Your task to perform on an android device: Check the news Image 0: 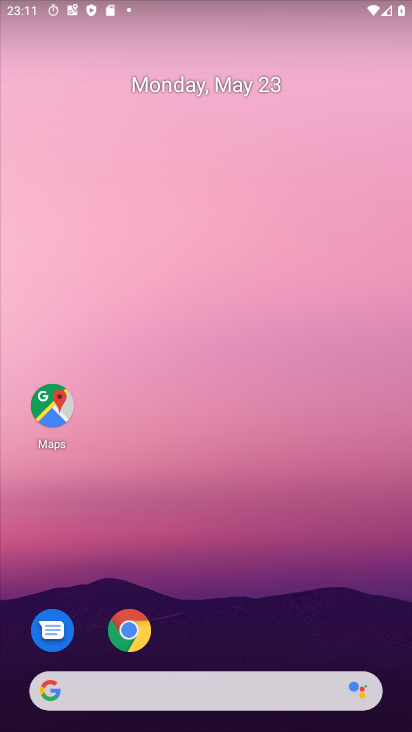
Step 0: click (99, 686)
Your task to perform on an android device: Check the news Image 1: 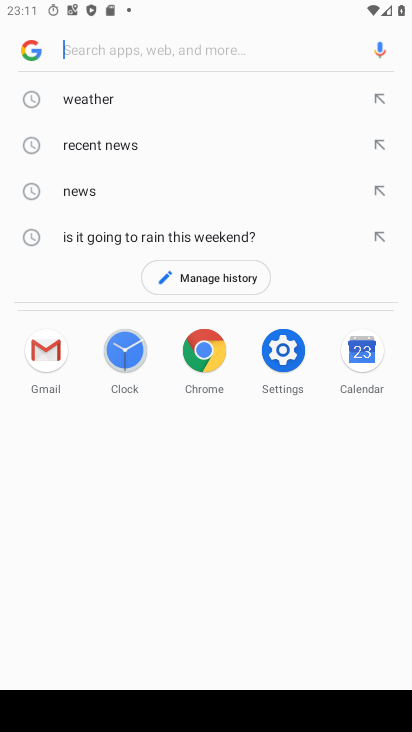
Step 1: click (72, 194)
Your task to perform on an android device: Check the news Image 2: 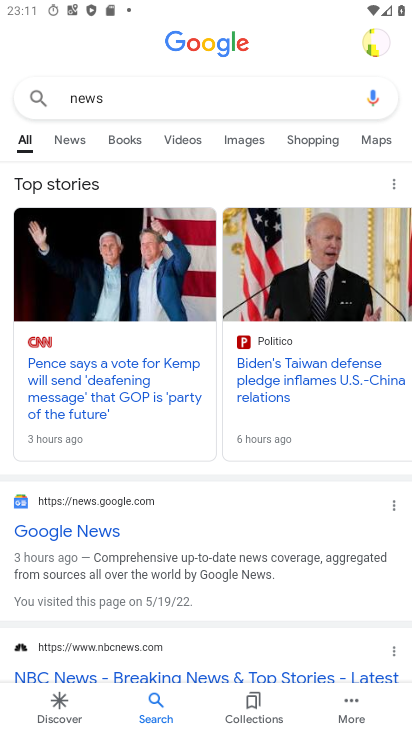
Step 2: click (78, 149)
Your task to perform on an android device: Check the news Image 3: 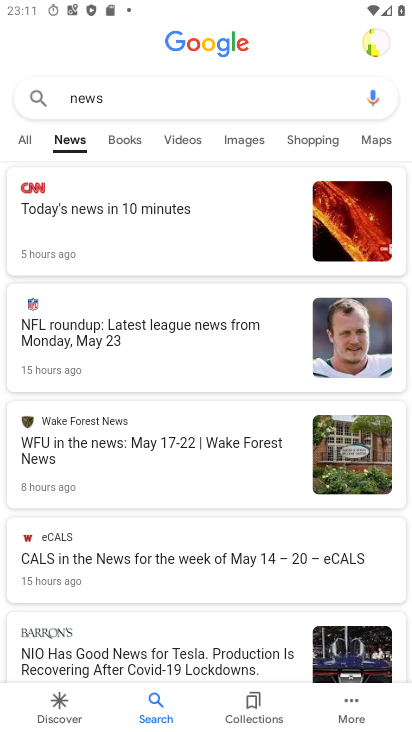
Step 3: task complete